Your task to perform on an android device: all mails in gmail Image 0: 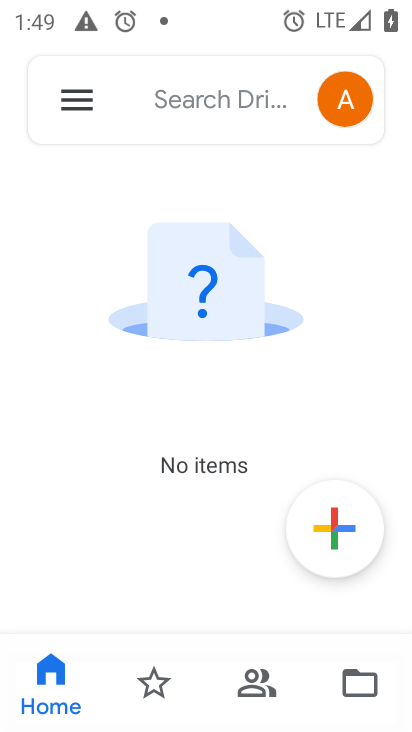
Step 0: press home button
Your task to perform on an android device: all mails in gmail Image 1: 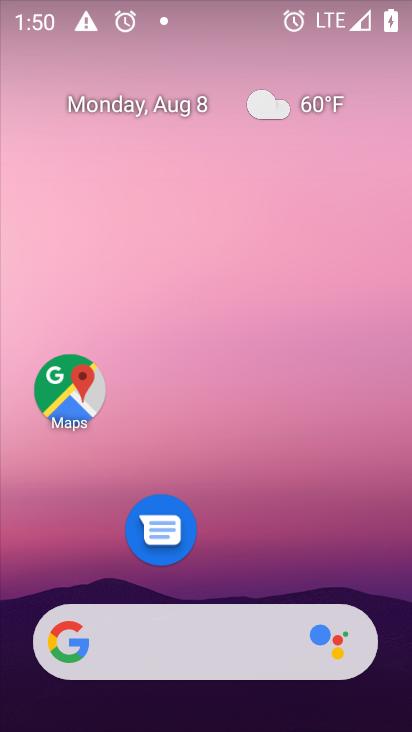
Step 1: drag from (231, 425) to (232, 95)
Your task to perform on an android device: all mails in gmail Image 2: 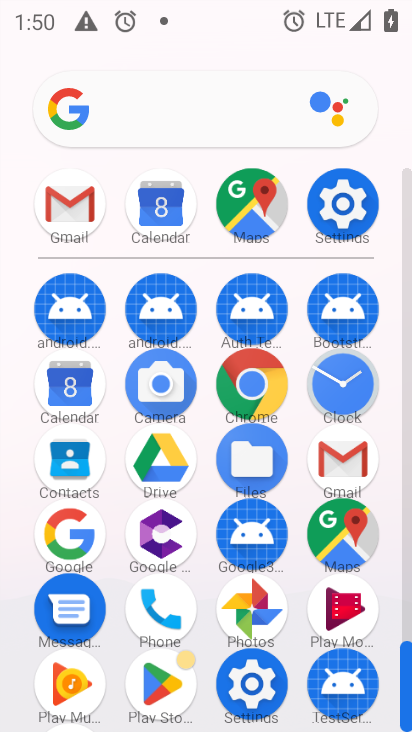
Step 2: click (353, 460)
Your task to perform on an android device: all mails in gmail Image 3: 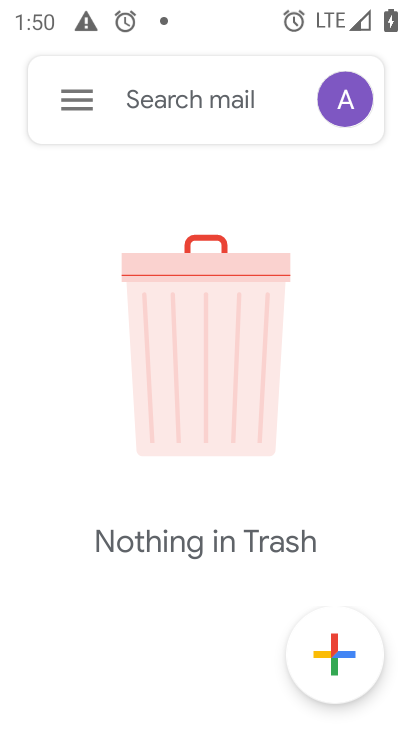
Step 3: click (69, 100)
Your task to perform on an android device: all mails in gmail Image 4: 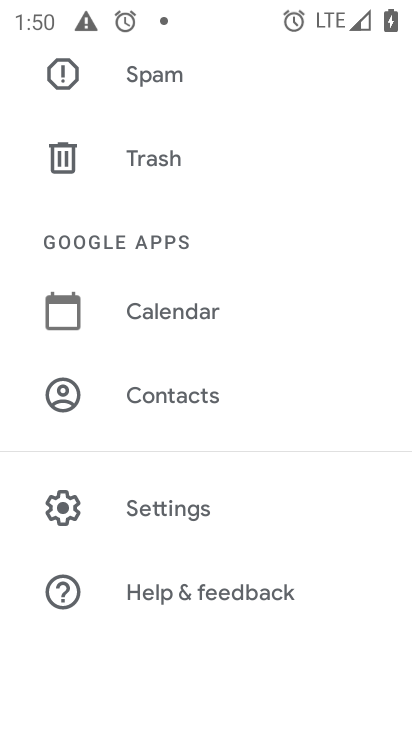
Step 4: drag from (163, 194) to (164, 503)
Your task to perform on an android device: all mails in gmail Image 5: 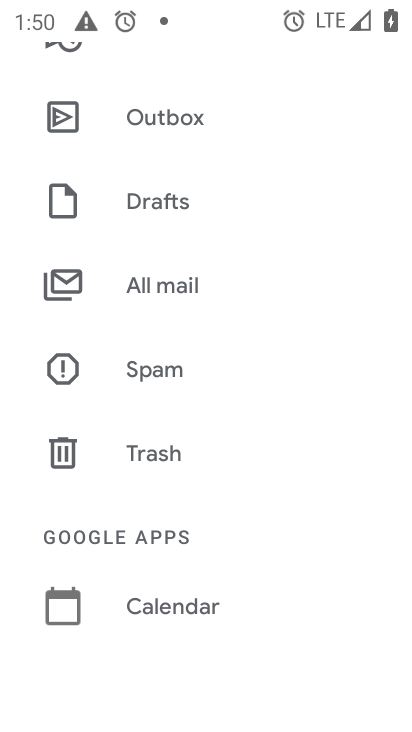
Step 5: click (173, 286)
Your task to perform on an android device: all mails in gmail Image 6: 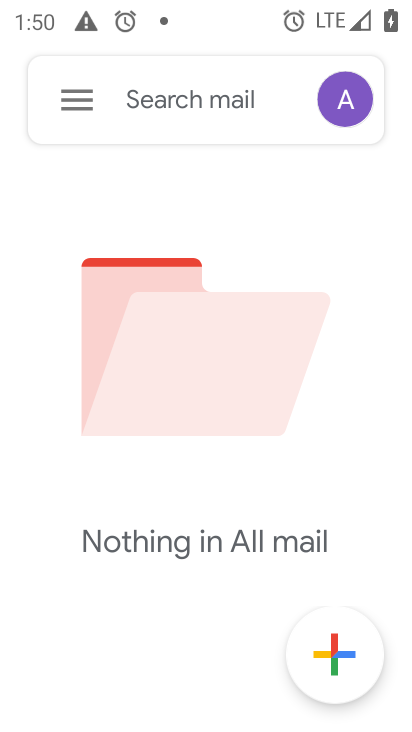
Step 6: task complete